Your task to perform on an android device: turn on showing notifications on the lock screen Image 0: 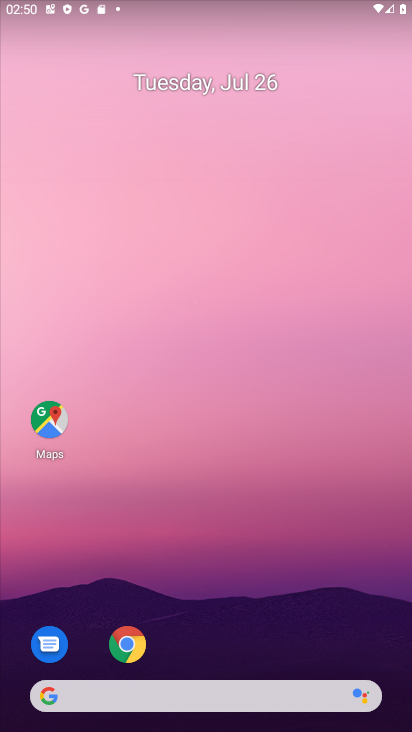
Step 0: drag from (166, 676) to (250, 1)
Your task to perform on an android device: turn on showing notifications on the lock screen Image 1: 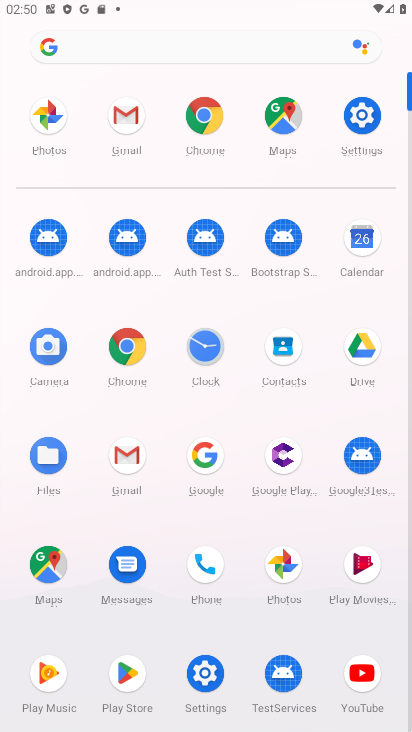
Step 1: click (196, 673)
Your task to perform on an android device: turn on showing notifications on the lock screen Image 2: 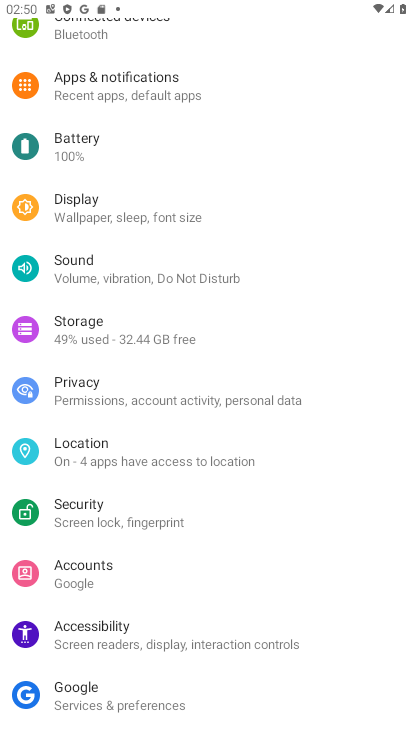
Step 2: click (111, 86)
Your task to perform on an android device: turn on showing notifications on the lock screen Image 3: 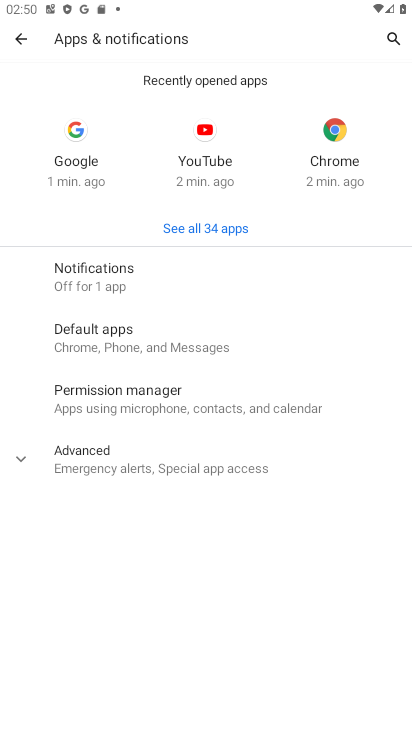
Step 3: click (81, 280)
Your task to perform on an android device: turn on showing notifications on the lock screen Image 4: 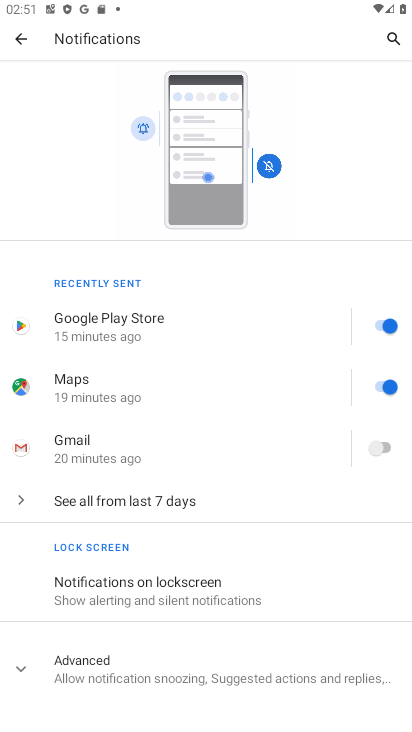
Step 4: click (184, 578)
Your task to perform on an android device: turn on showing notifications on the lock screen Image 5: 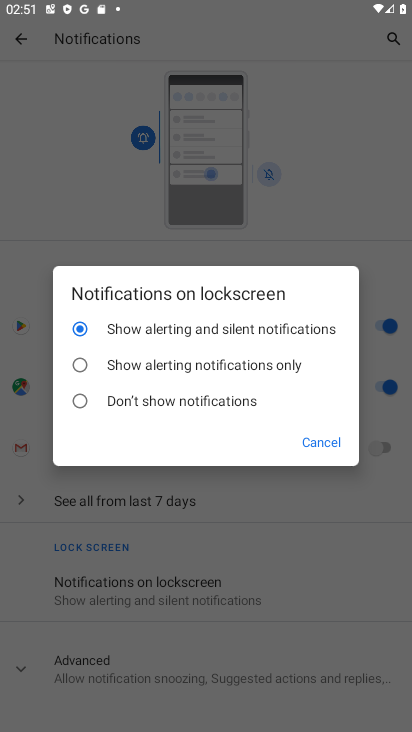
Step 5: task complete